Your task to perform on an android device: Go to display settings Image 0: 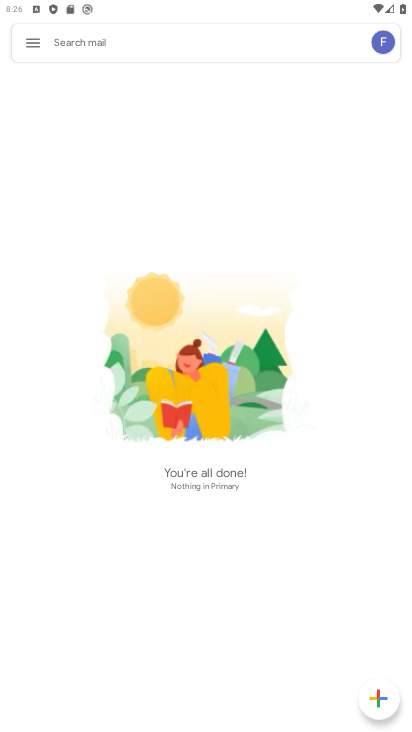
Step 0: press home button
Your task to perform on an android device: Go to display settings Image 1: 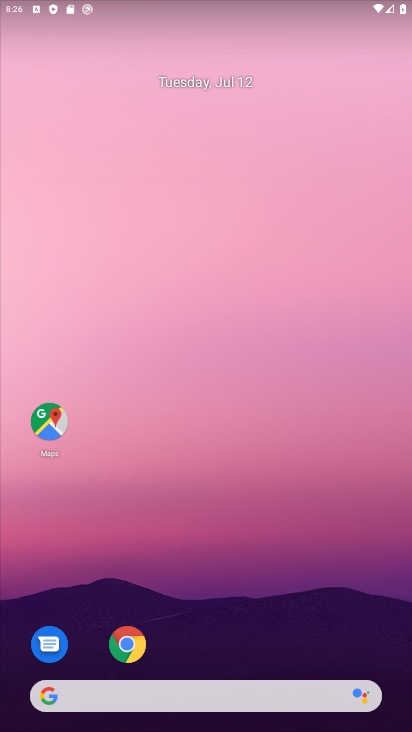
Step 1: drag from (366, 644) to (291, 227)
Your task to perform on an android device: Go to display settings Image 2: 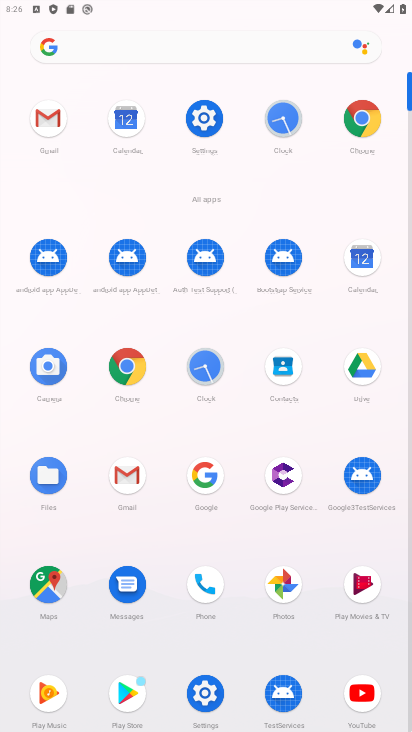
Step 2: click (203, 687)
Your task to perform on an android device: Go to display settings Image 3: 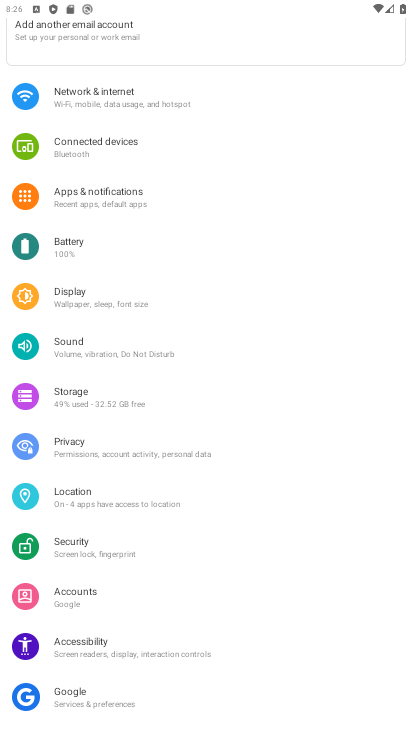
Step 3: click (72, 296)
Your task to perform on an android device: Go to display settings Image 4: 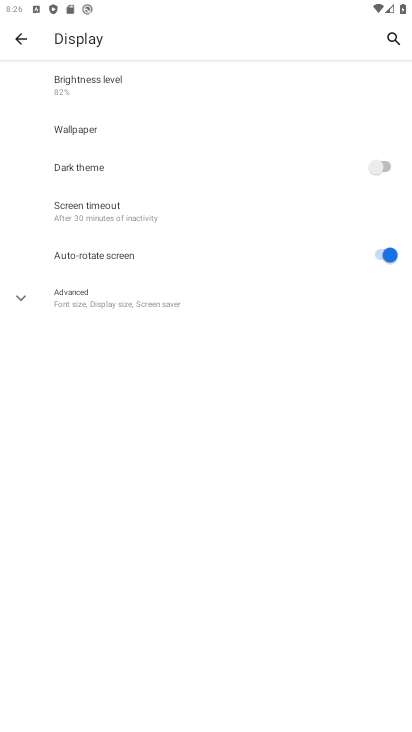
Step 4: click (16, 302)
Your task to perform on an android device: Go to display settings Image 5: 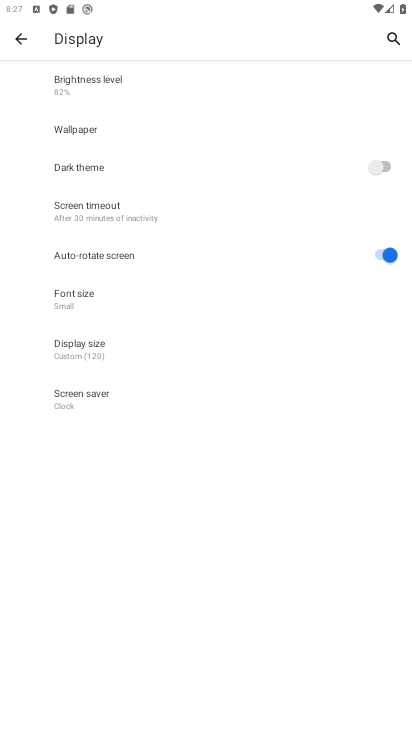
Step 5: task complete